Your task to perform on an android device: turn on the 24-hour format for clock Image 0: 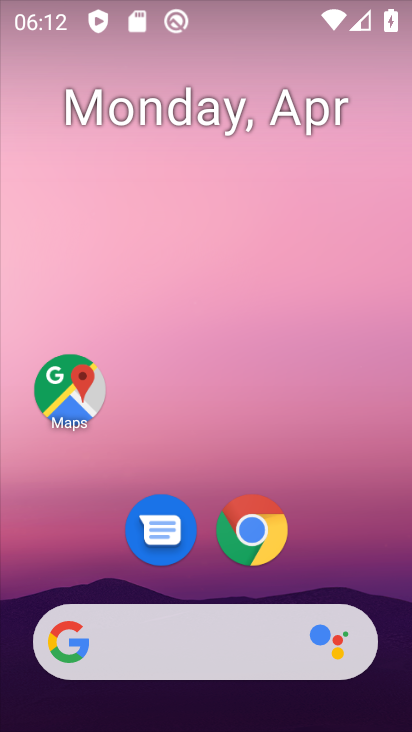
Step 0: drag from (210, 584) to (254, 167)
Your task to perform on an android device: turn on the 24-hour format for clock Image 1: 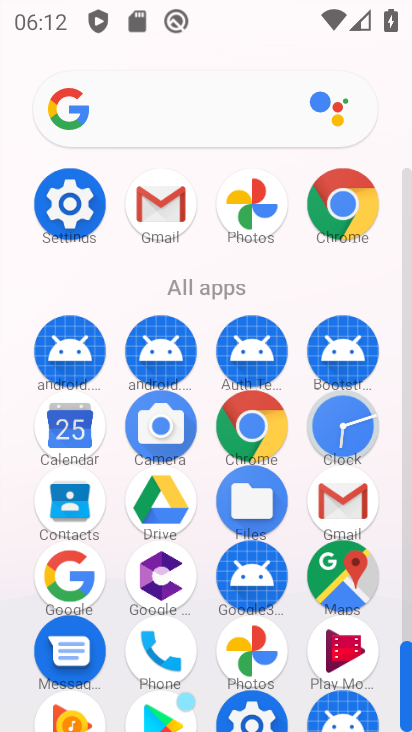
Step 1: click (346, 426)
Your task to perform on an android device: turn on the 24-hour format for clock Image 2: 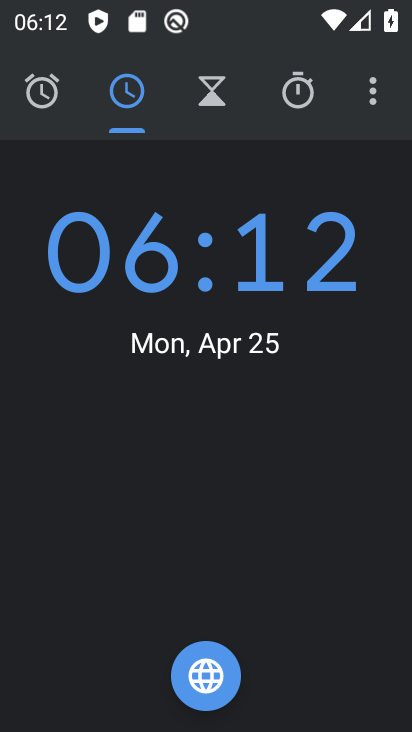
Step 2: click (368, 87)
Your task to perform on an android device: turn on the 24-hour format for clock Image 3: 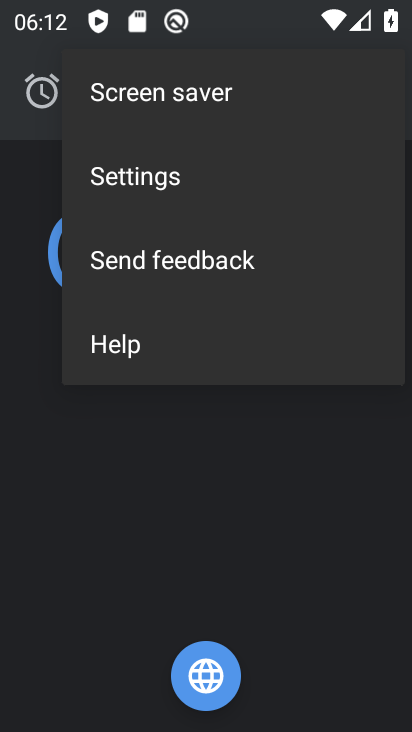
Step 3: click (196, 176)
Your task to perform on an android device: turn on the 24-hour format for clock Image 4: 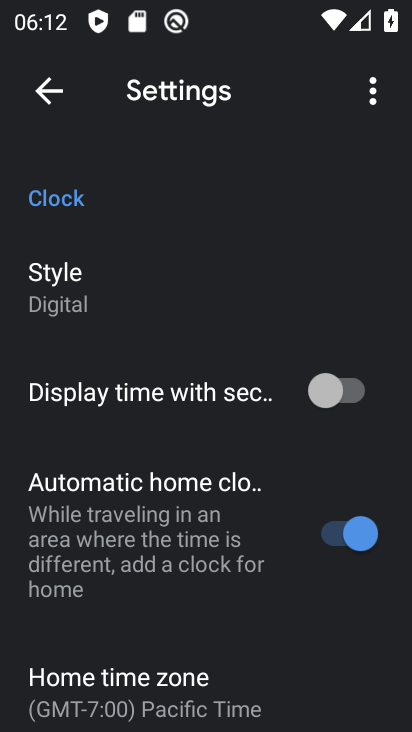
Step 4: drag from (206, 641) to (237, 95)
Your task to perform on an android device: turn on the 24-hour format for clock Image 5: 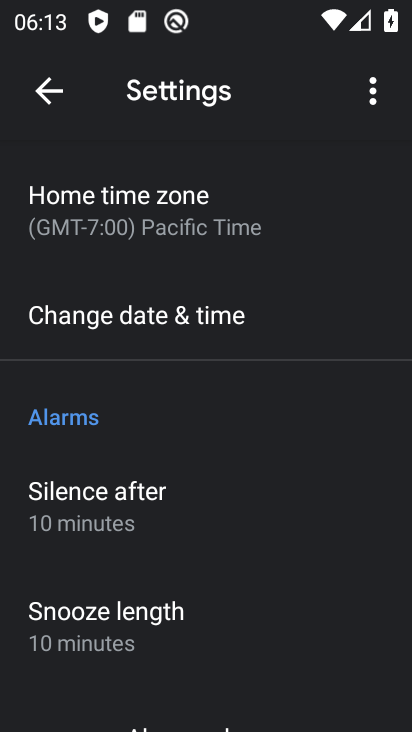
Step 5: drag from (202, 641) to (219, 329)
Your task to perform on an android device: turn on the 24-hour format for clock Image 6: 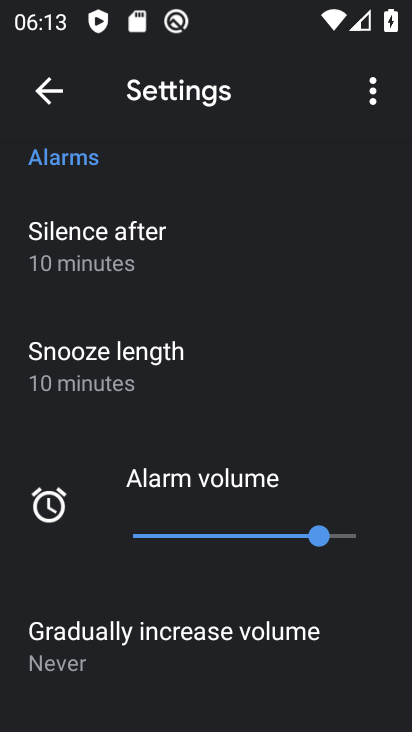
Step 6: drag from (206, 644) to (221, 398)
Your task to perform on an android device: turn on the 24-hour format for clock Image 7: 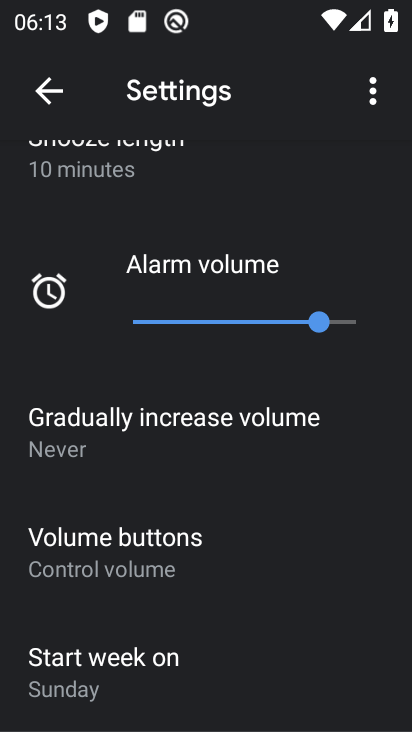
Step 7: drag from (223, 665) to (169, 726)
Your task to perform on an android device: turn on the 24-hour format for clock Image 8: 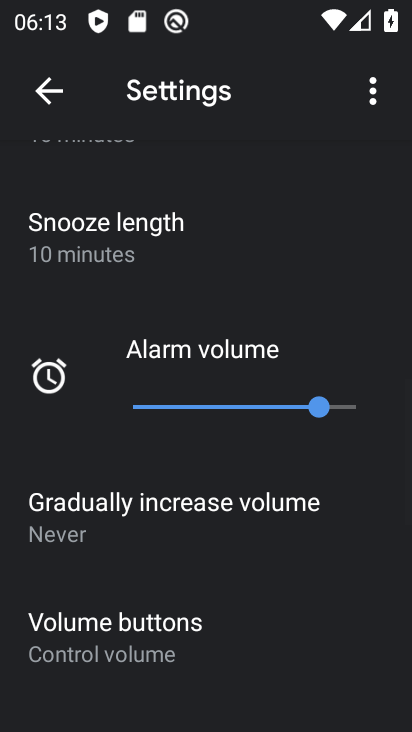
Step 8: drag from (154, 253) to (166, 713)
Your task to perform on an android device: turn on the 24-hour format for clock Image 9: 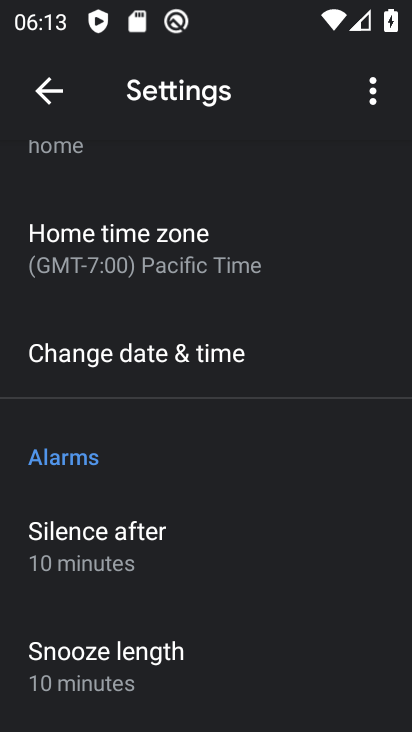
Step 9: click (262, 354)
Your task to perform on an android device: turn on the 24-hour format for clock Image 10: 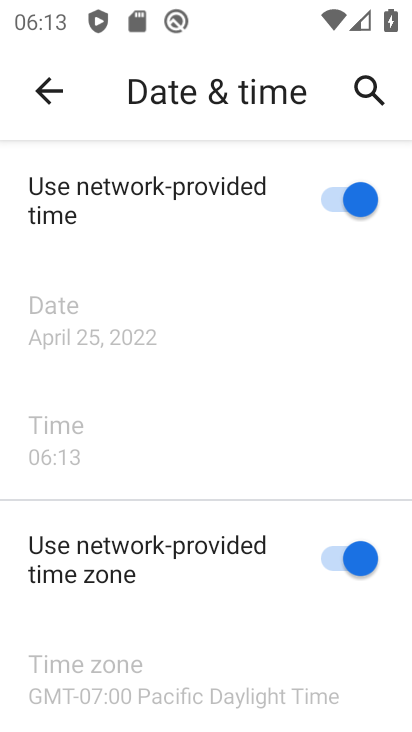
Step 10: task complete